Your task to perform on an android device: change alarm snooze length Image 0: 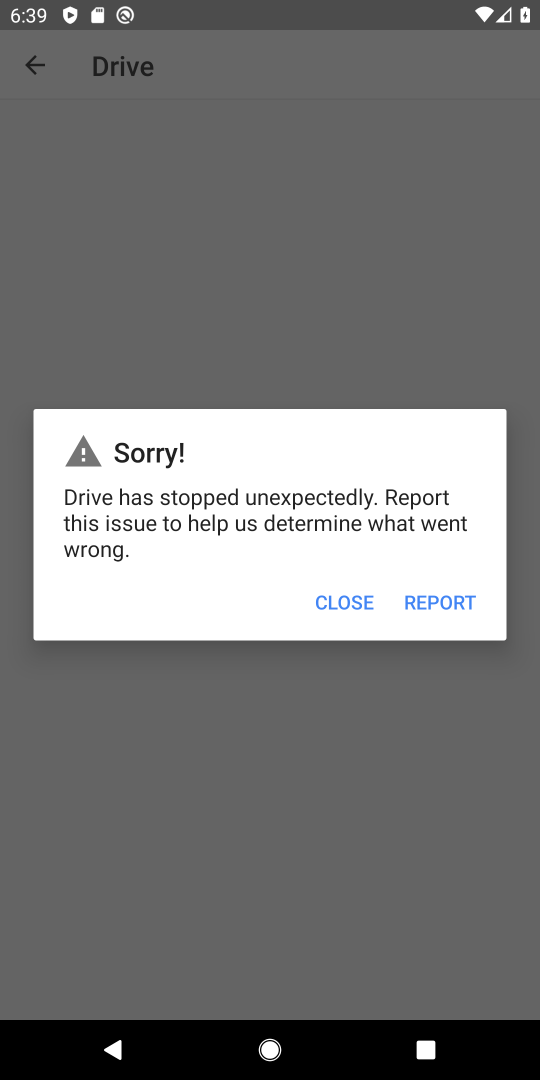
Step 0: press home button
Your task to perform on an android device: change alarm snooze length Image 1: 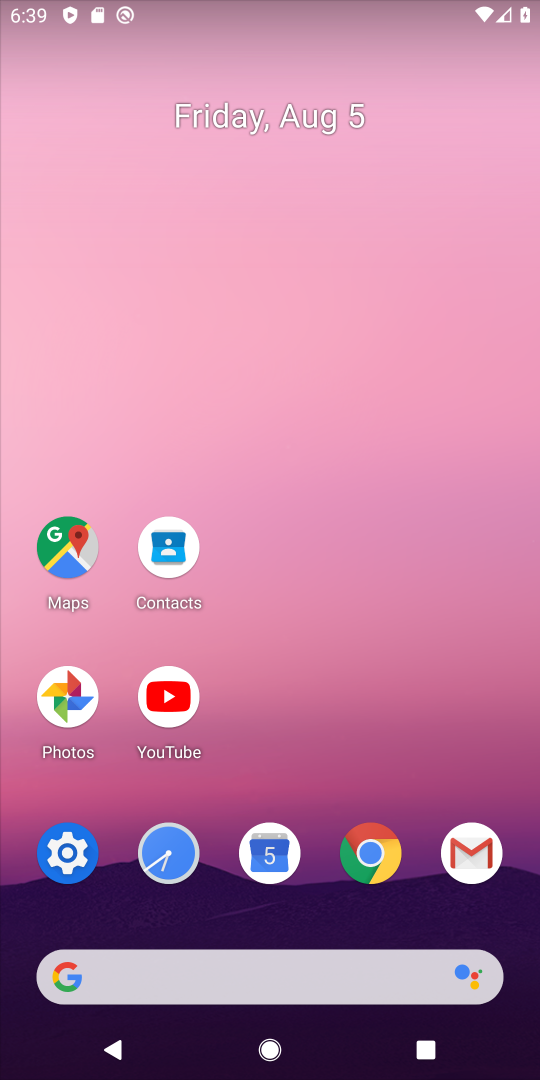
Step 1: click (177, 825)
Your task to perform on an android device: change alarm snooze length Image 2: 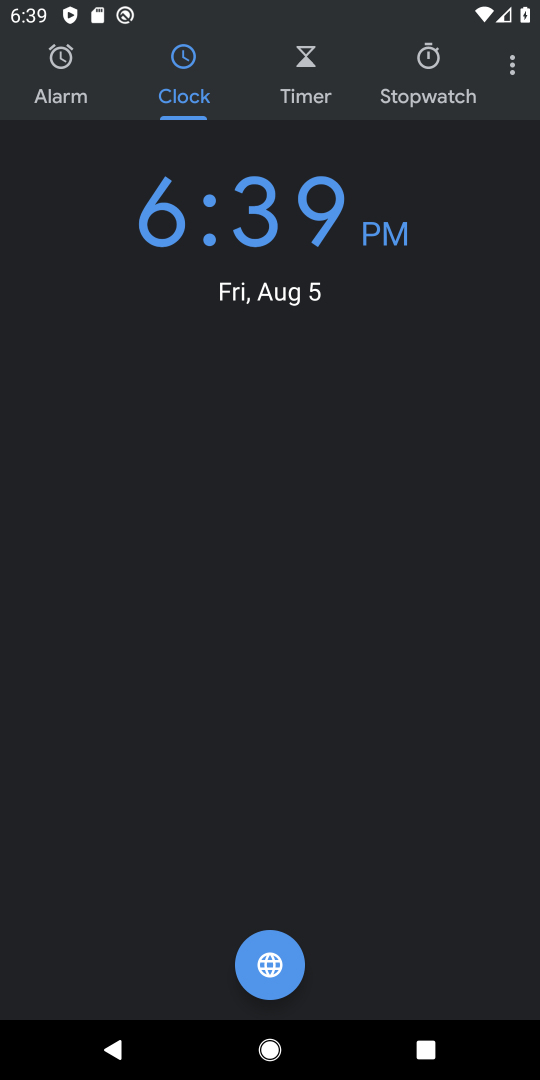
Step 2: click (521, 71)
Your task to perform on an android device: change alarm snooze length Image 3: 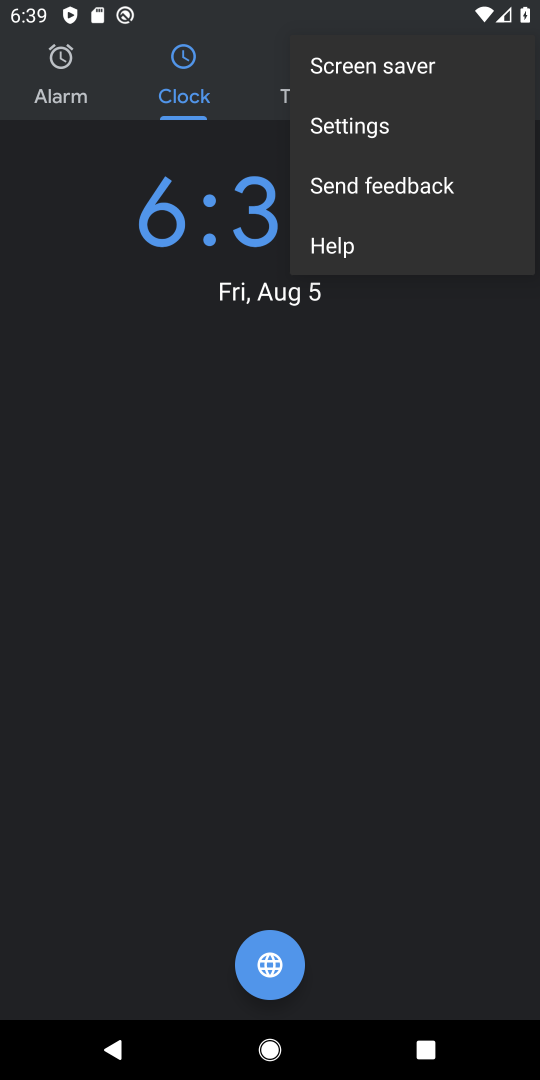
Step 3: click (358, 124)
Your task to perform on an android device: change alarm snooze length Image 4: 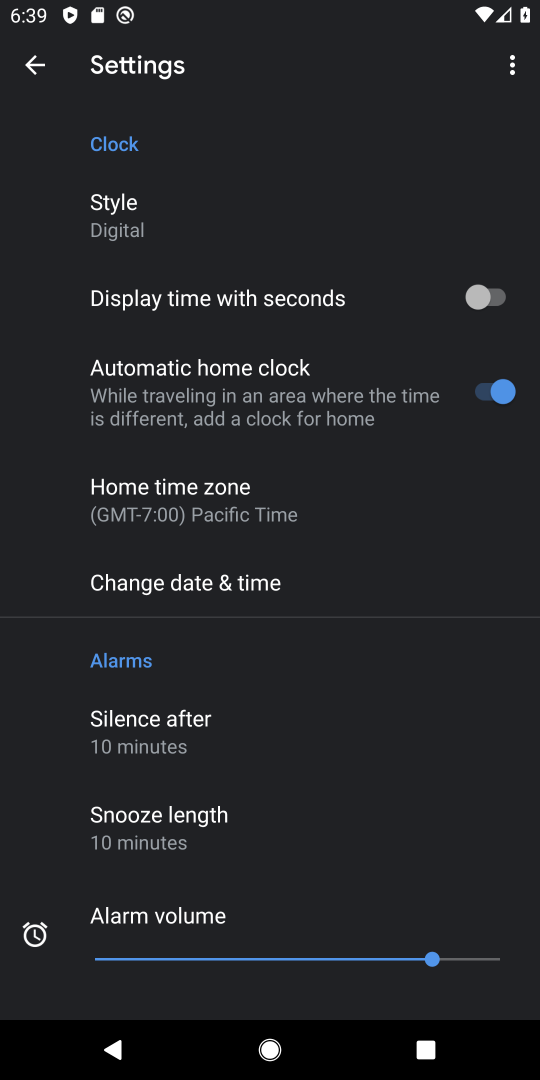
Step 4: click (161, 816)
Your task to perform on an android device: change alarm snooze length Image 5: 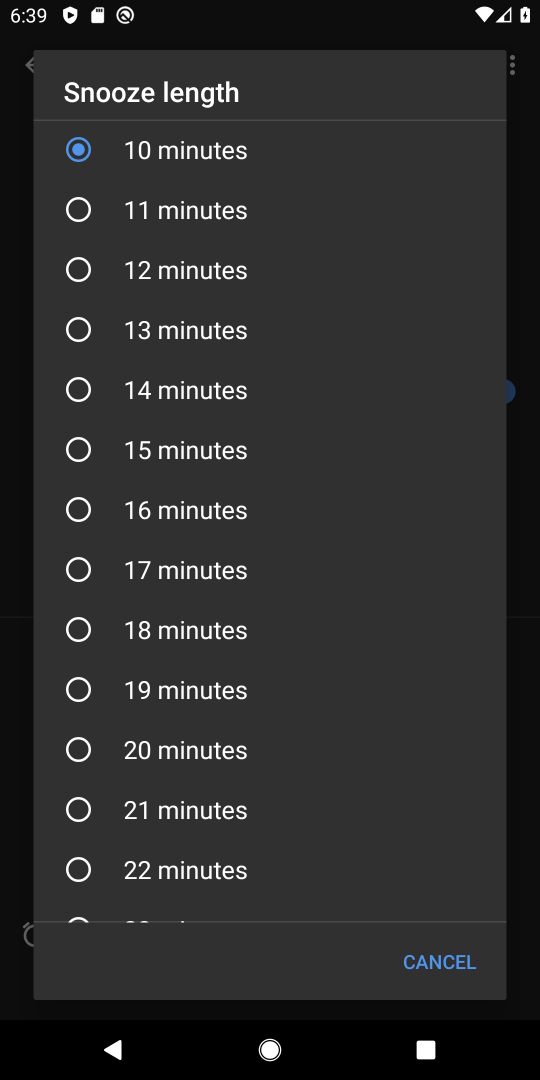
Step 5: click (81, 449)
Your task to perform on an android device: change alarm snooze length Image 6: 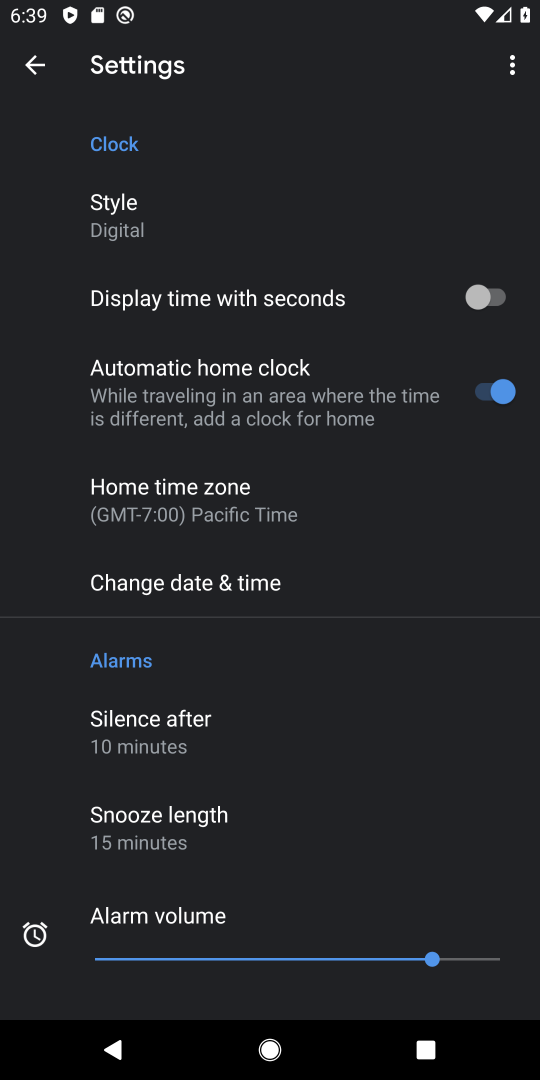
Step 6: task complete